Your task to perform on an android device: Open accessibility settings Image 0: 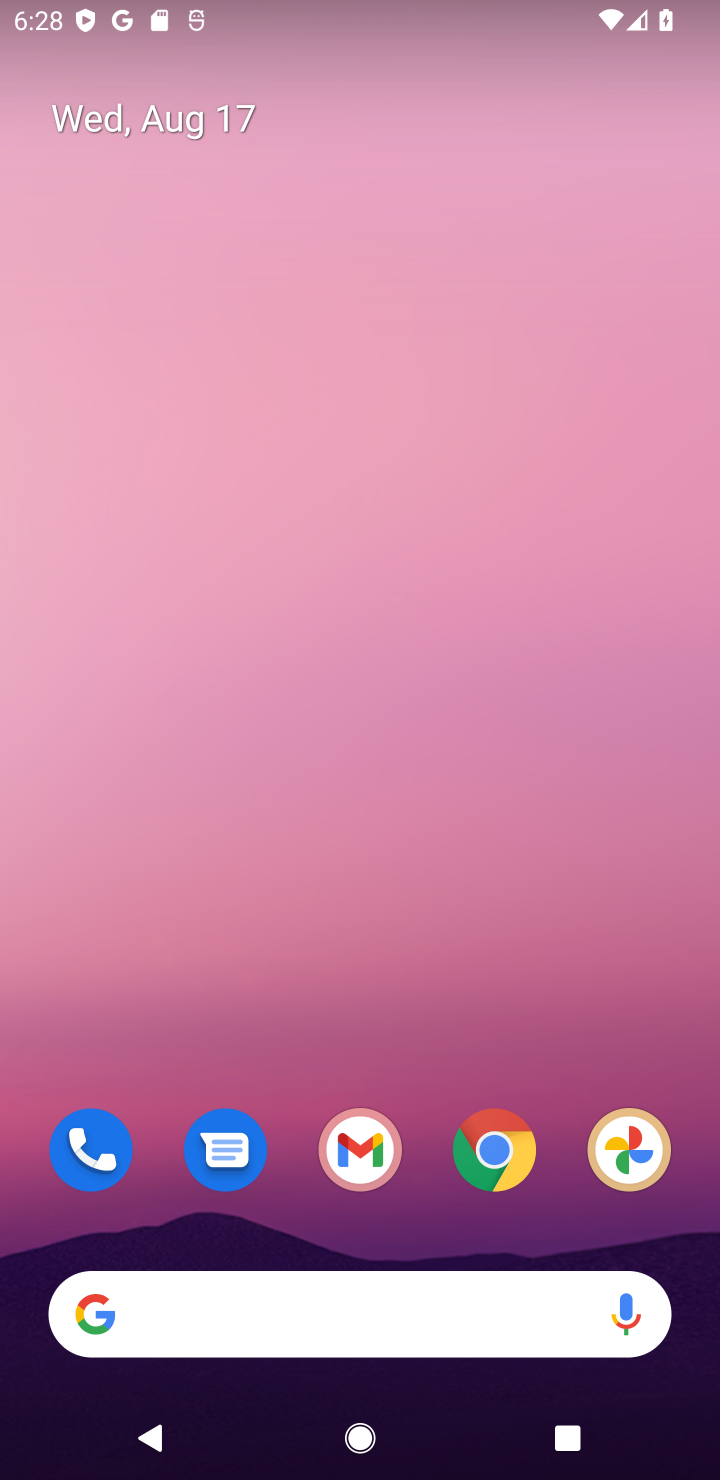
Step 0: drag from (370, 712) to (370, 552)
Your task to perform on an android device: Open accessibility settings Image 1: 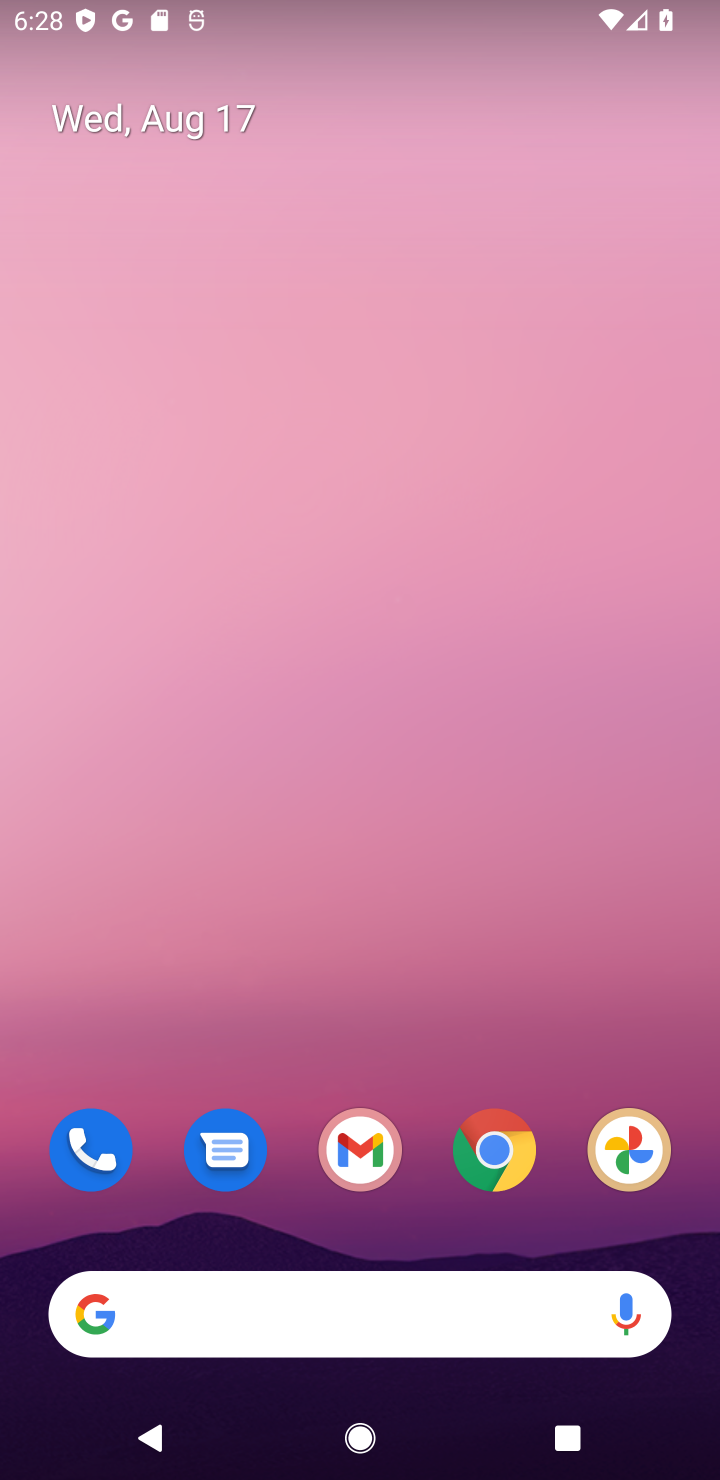
Step 1: click (375, 298)
Your task to perform on an android device: Open accessibility settings Image 2: 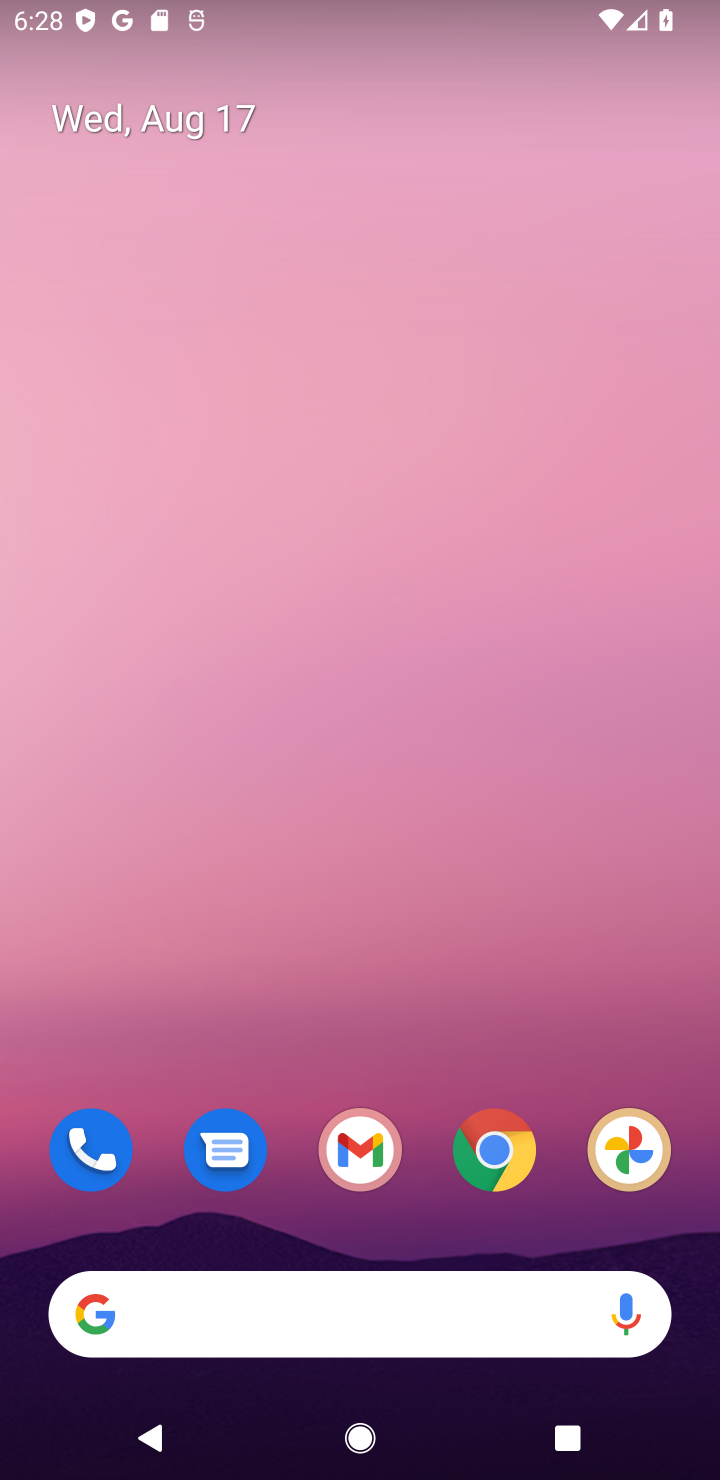
Step 2: drag from (416, 893) to (424, 233)
Your task to perform on an android device: Open accessibility settings Image 3: 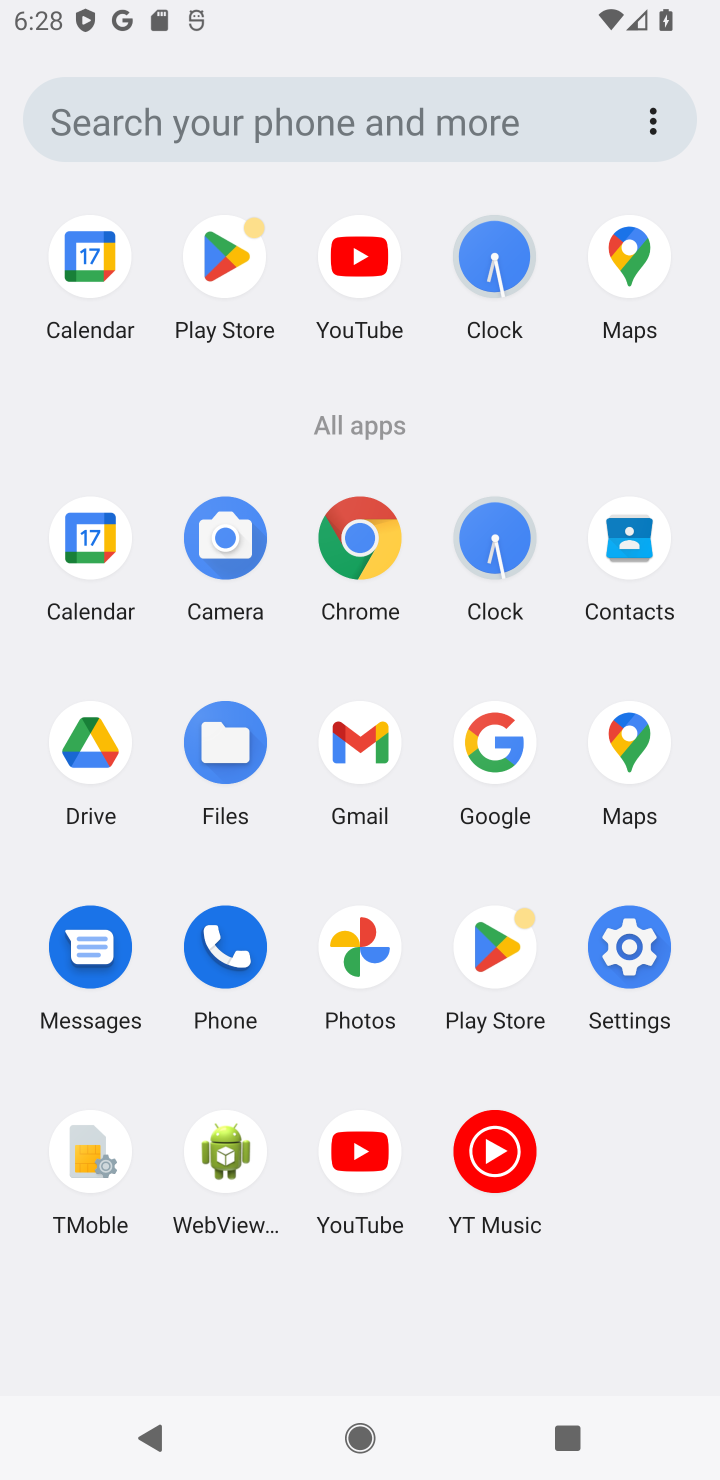
Step 3: click (613, 946)
Your task to perform on an android device: Open accessibility settings Image 4: 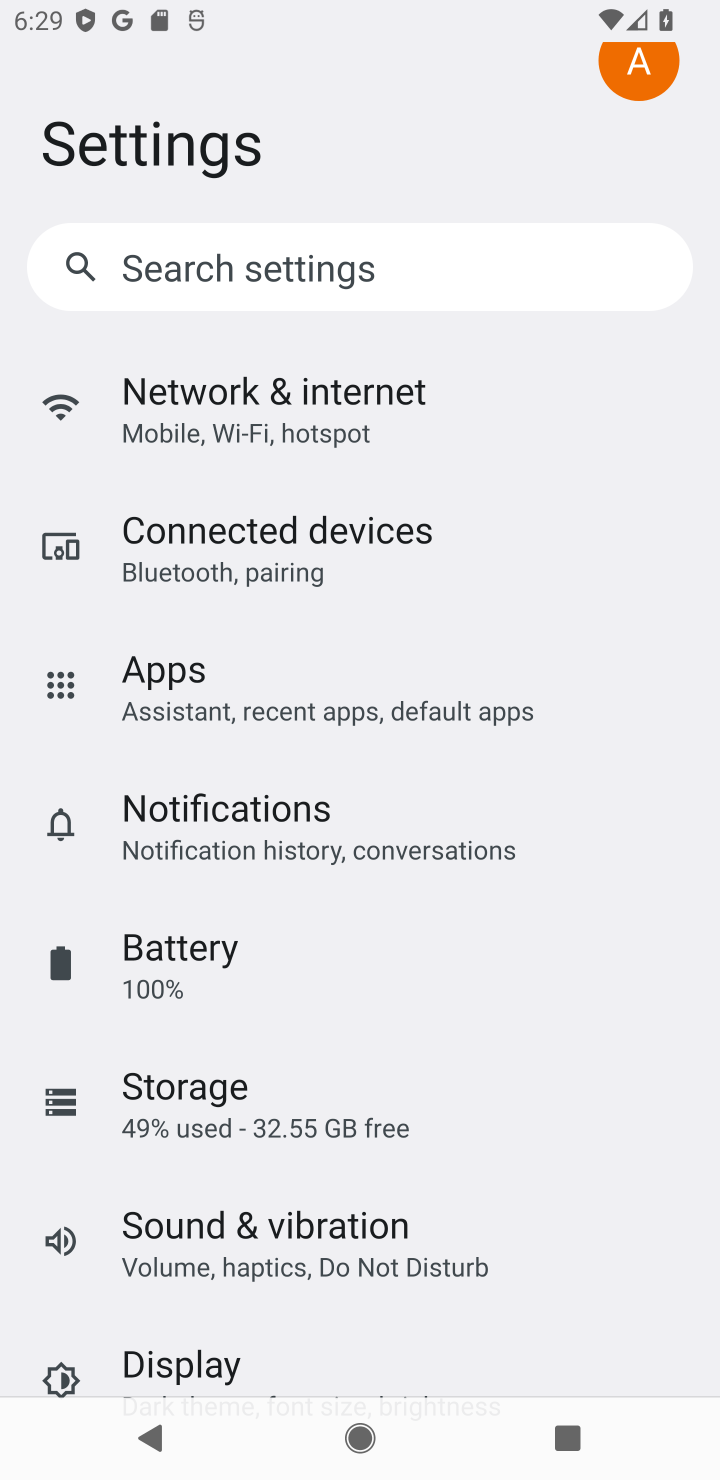
Step 4: drag from (209, 1288) to (235, 387)
Your task to perform on an android device: Open accessibility settings Image 5: 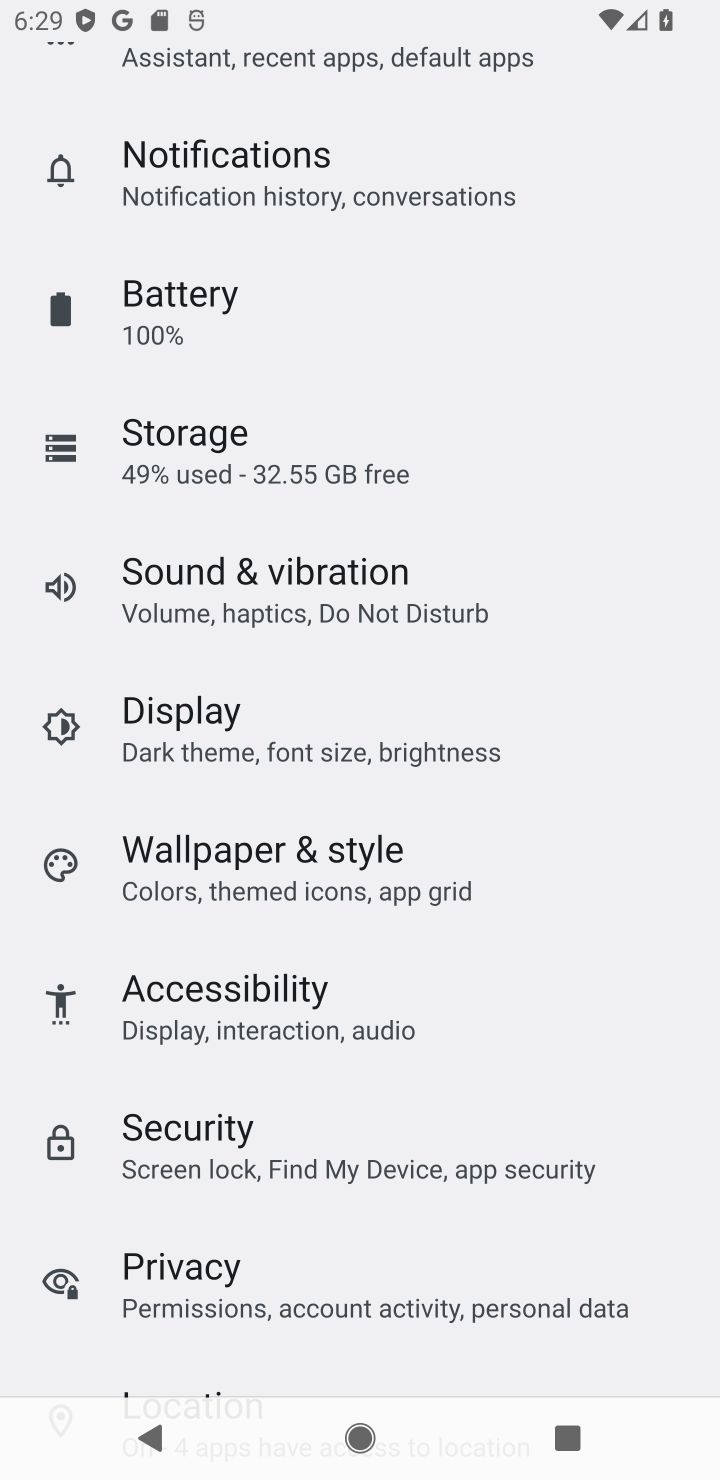
Step 5: click (179, 1006)
Your task to perform on an android device: Open accessibility settings Image 6: 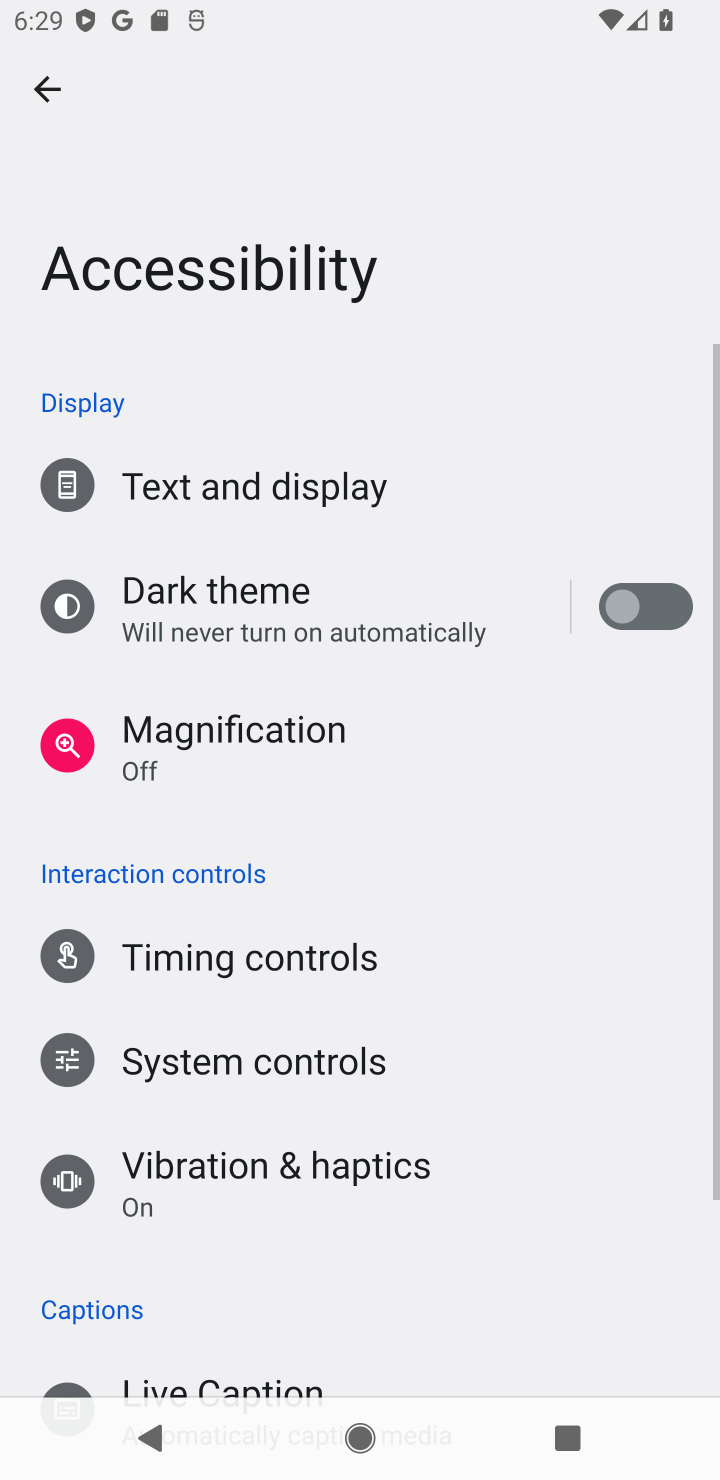
Step 6: task complete